Your task to perform on an android device: Go to Google maps Image 0: 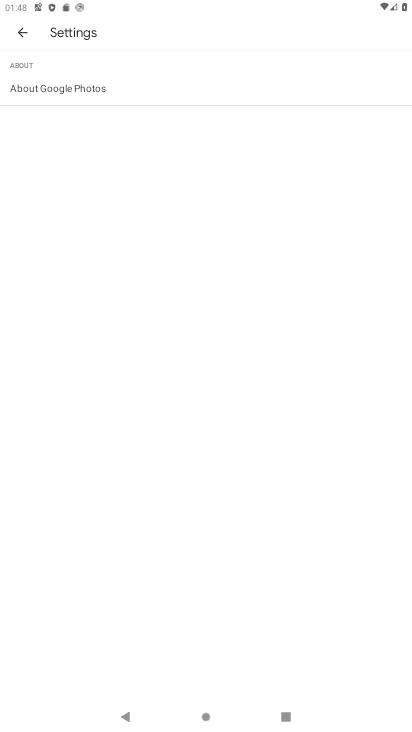
Step 0: press home button
Your task to perform on an android device: Go to Google maps Image 1: 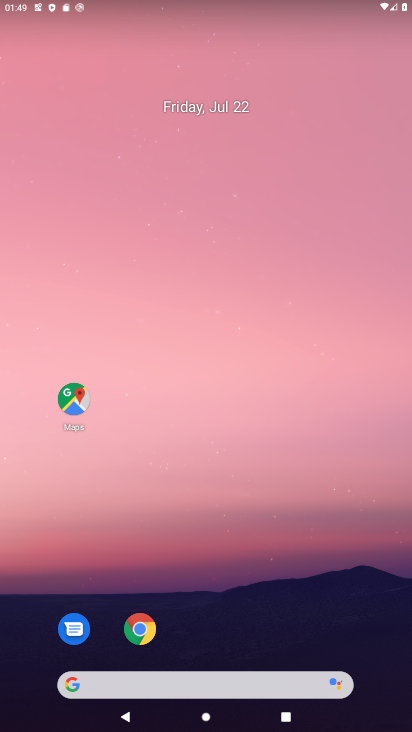
Step 1: drag from (217, 515) to (325, 15)
Your task to perform on an android device: Go to Google maps Image 2: 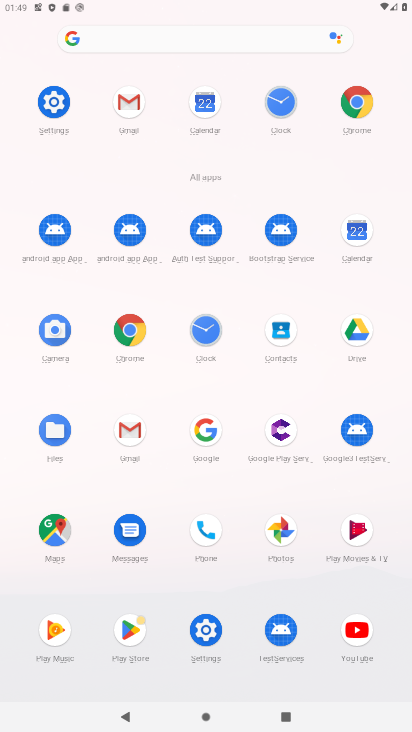
Step 2: click (54, 537)
Your task to perform on an android device: Go to Google maps Image 3: 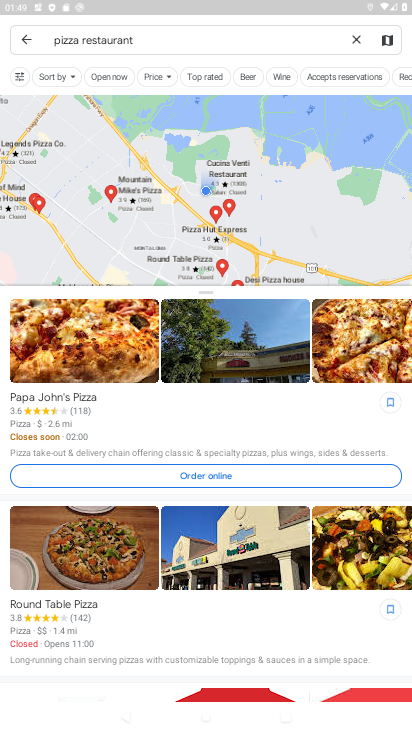
Step 3: task complete